Your task to perform on an android device: Go to location settings Image 0: 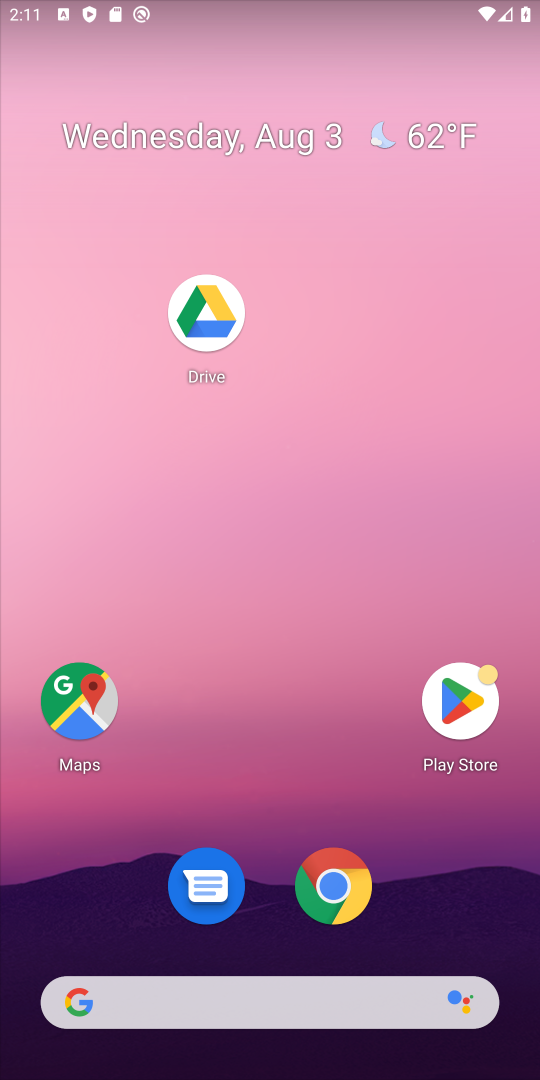
Step 0: drag from (372, 815) to (325, 21)
Your task to perform on an android device: Go to location settings Image 1: 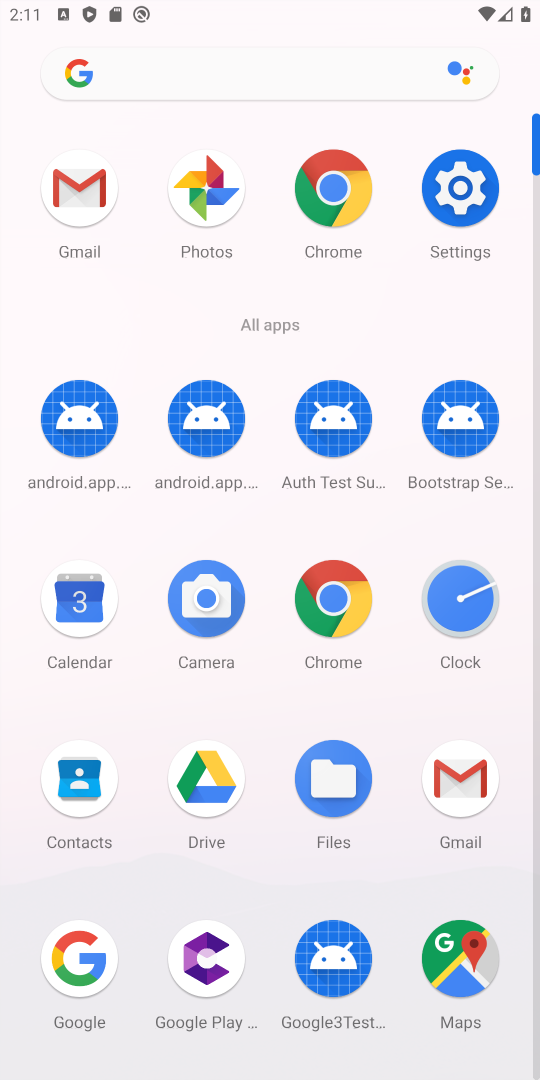
Step 1: click (469, 186)
Your task to perform on an android device: Go to location settings Image 2: 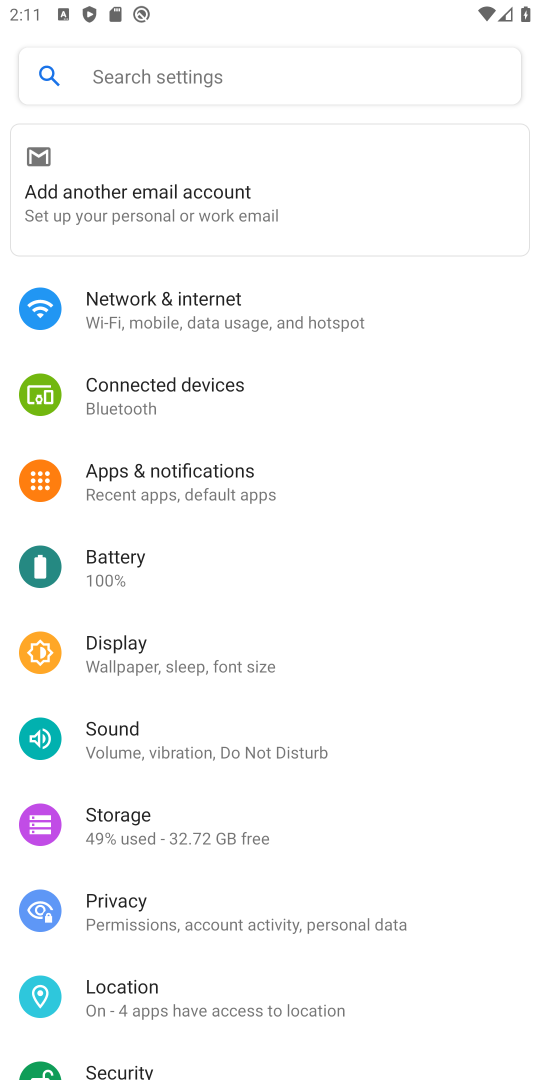
Step 2: click (221, 1008)
Your task to perform on an android device: Go to location settings Image 3: 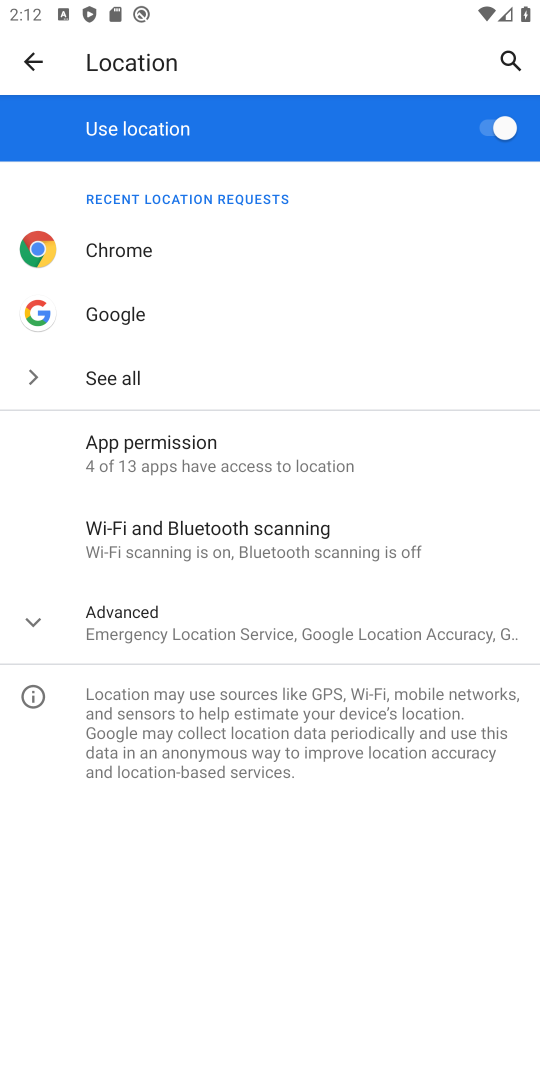
Step 3: task complete